Your task to perform on an android device: toggle airplane mode Image 0: 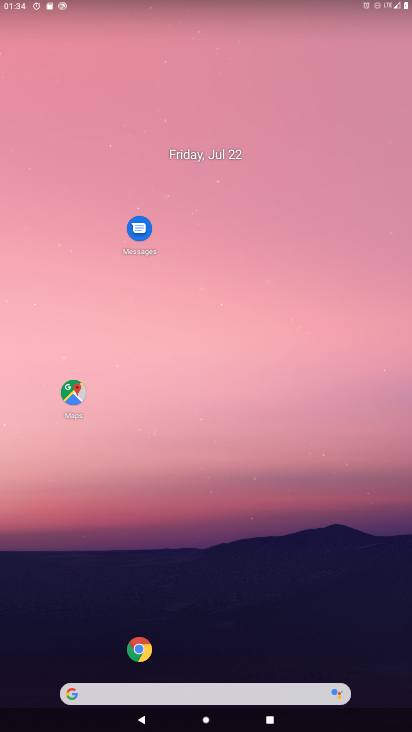
Step 0: drag from (53, 699) to (285, 106)
Your task to perform on an android device: toggle airplane mode Image 1: 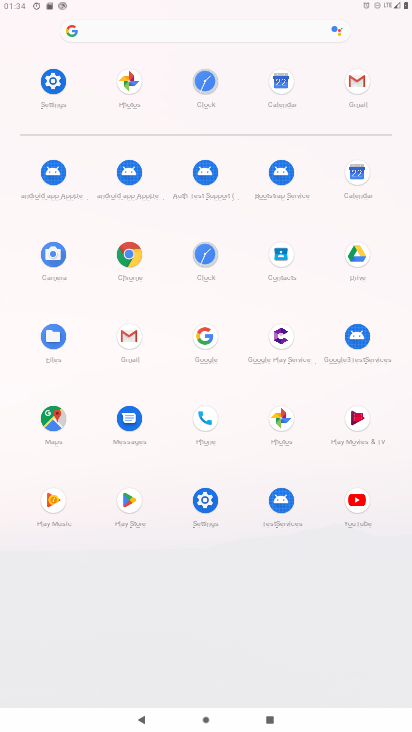
Step 1: click (199, 507)
Your task to perform on an android device: toggle airplane mode Image 2: 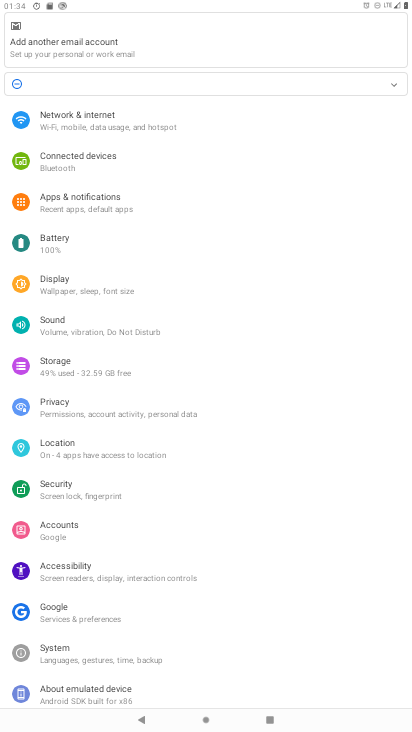
Step 2: click (82, 125)
Your task to perform on an android device: toggle airplane mode Image 3: 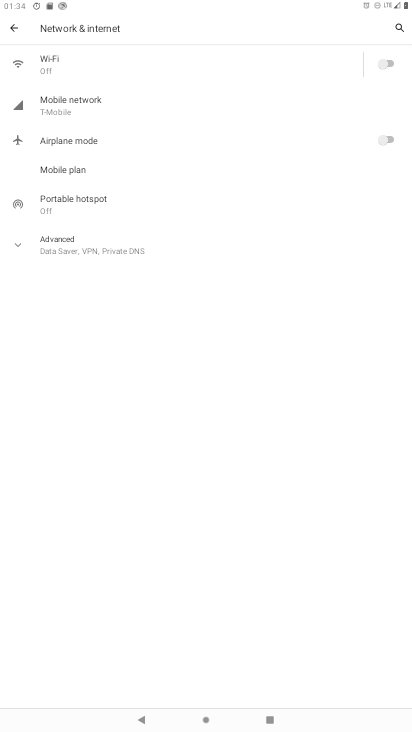
Step 3: task complete